Your task to perform on an android device: turn on the 24-hour format for clock Image 0: 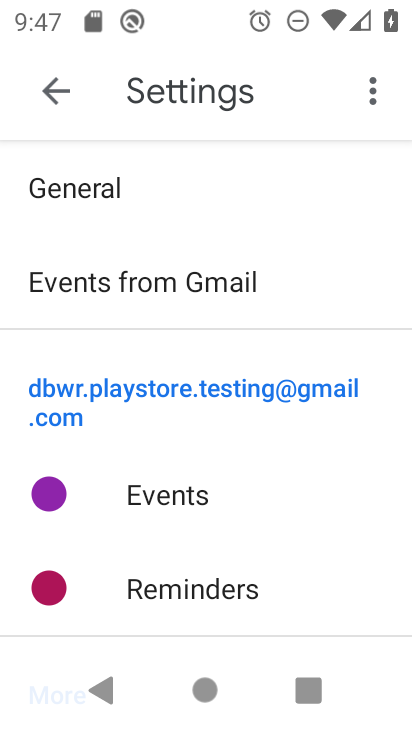
Step 0: press home button
Your task to perform on an android device: turn on the 24-hour format for clock Image 1: 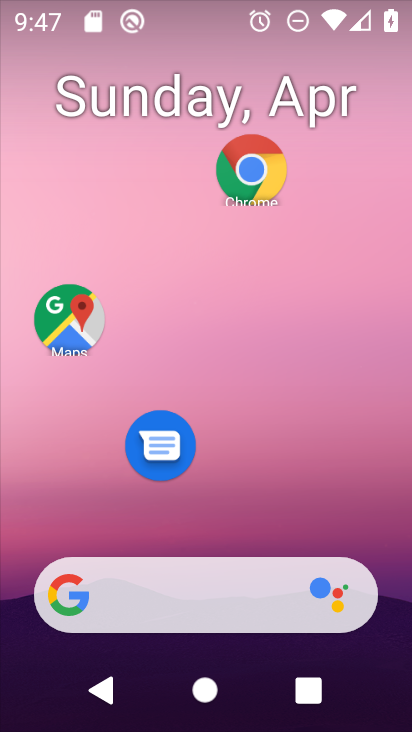
Step 1: drag from (241, 452) to (255, 113)
Your task to perform on an android device: turn on the 24-hour format for clock Image 2: 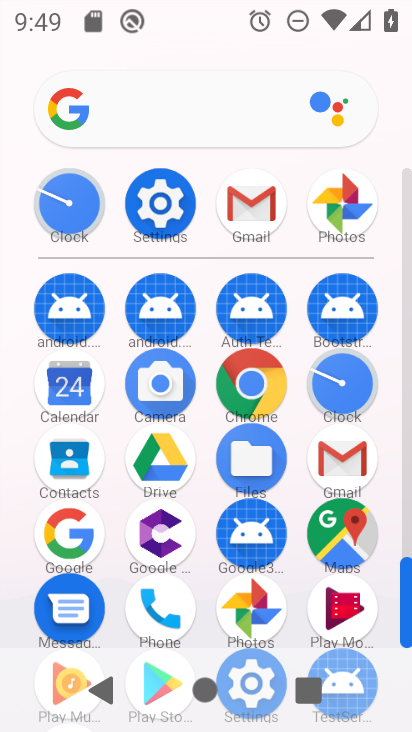
Step 2: click (347, 387)
Your task to perform on an android device: turn on the 24-hour format for clock Image 3: 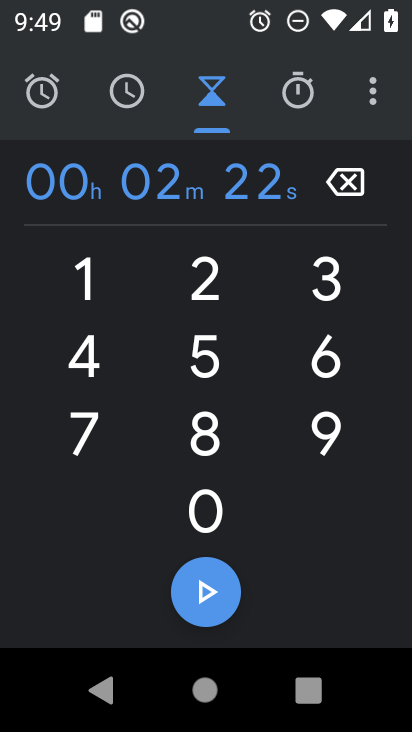
Step 3: click (361, 95)
Your task to perform on an android device: turn on the 24-hour format for clock Image 4: 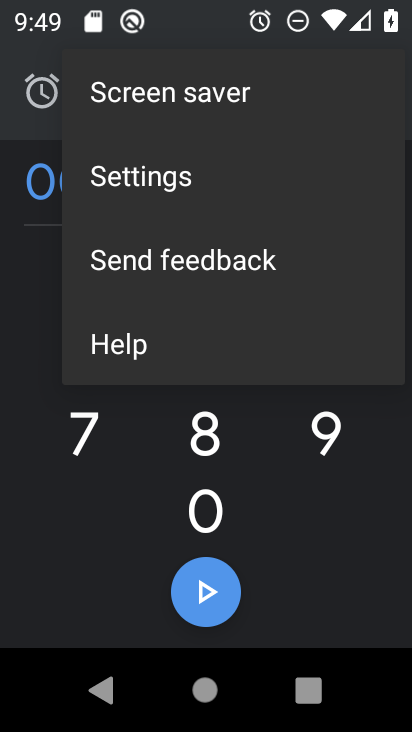
Step 4: click (152, 185)
Your task to perform on an android device: turn on the 24-hour format for clock Image 5: 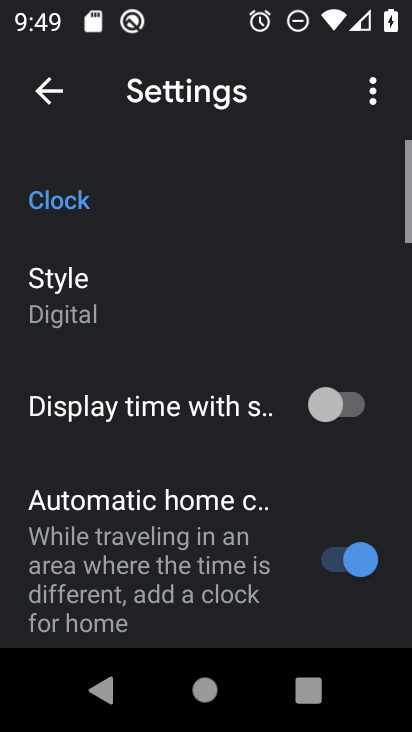
Step 5: drag from (178, 462) to (231, 150)
Your task to perform on an android device: turn on the 24-hour format for clock Image 6: 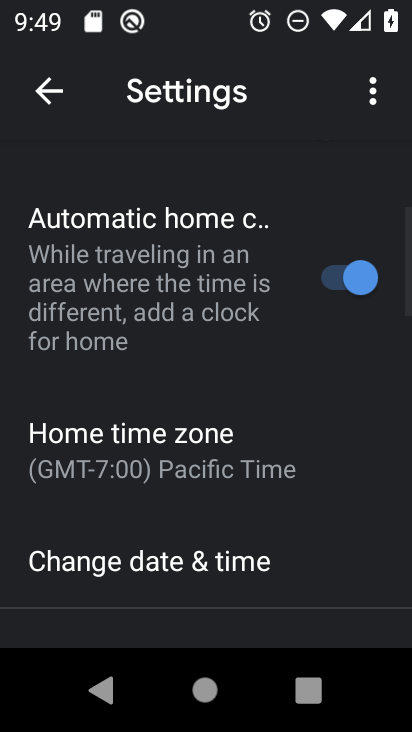
Step 6: drag from (231, 510) to (237, 317)
Your task to perform on an android device: turn on the 24-hour format for clock Image 7: 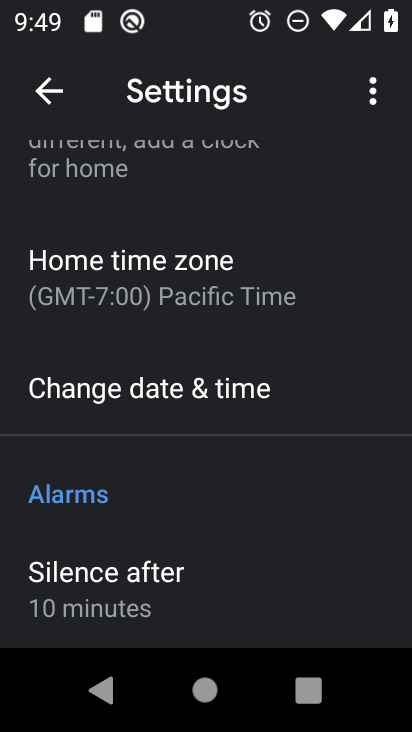
Step 7: click (147, 392)
Your task to perform on an android device: turn on the 24-hour format for clock Image 8: 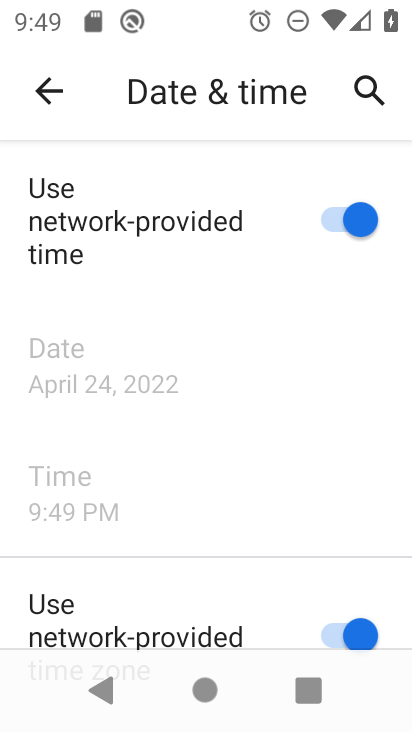
Step 8: drag from (218, 597) to (232, 81)
Your task to perform on an android device: turn on the 24-hour format for clock Image 9: 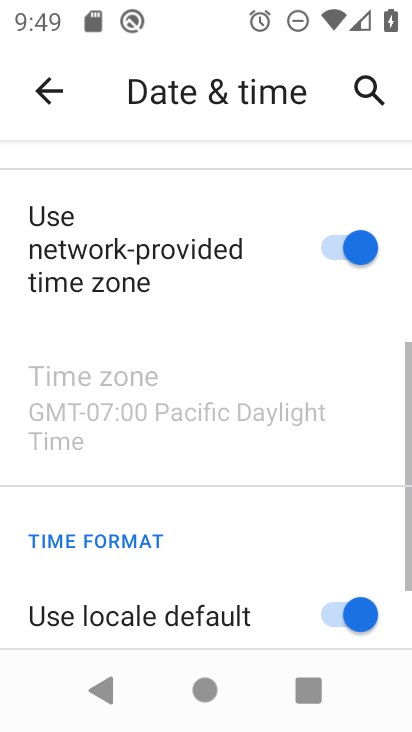
Step 9: drag from (262, 567) to (290, 188)
Your task to perform on an android device: turn on the 24-hour format for clock Image 10: 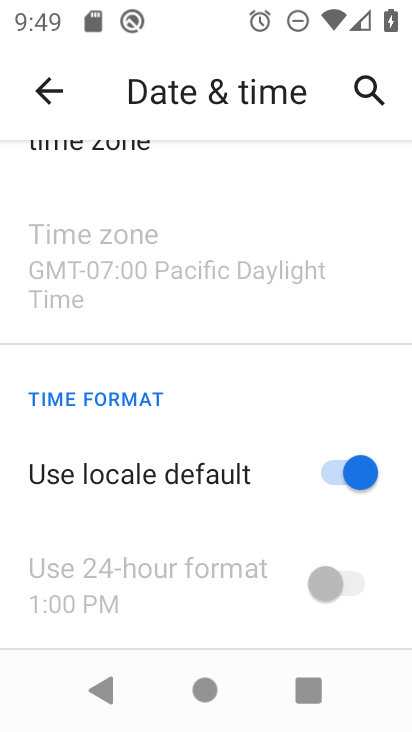
Step 10: click (341, 469)
Your task to perform on an android device: turn on the 24-hour format for clock Image 11: 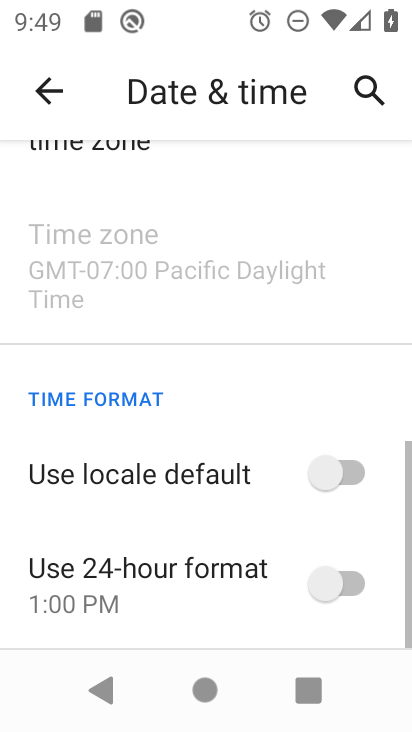
Step 11: click (338, 581)
Your task to perform on an android device: turn on the 24-hour format for clock Image 12: 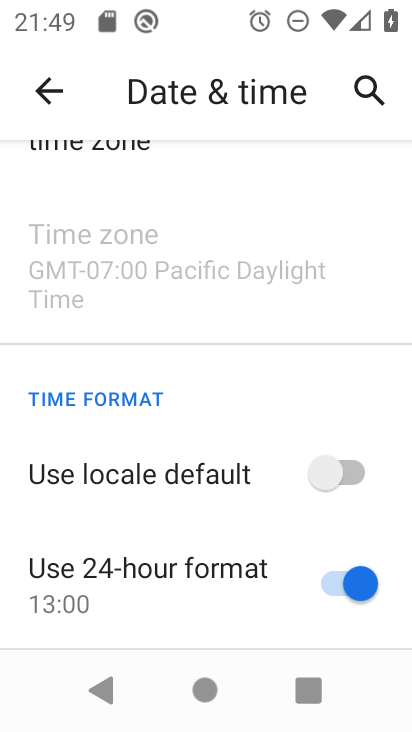
Step 12: task complete